Your task to perform on an android device: Go to battery settings Image 0: 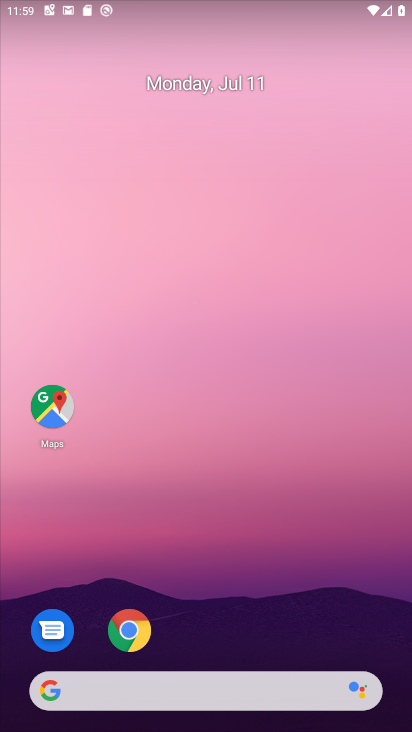
Step 0: drag from (208, 660) to (208, 8)
Your task to perform on an android device: Go to battery settings Image 1: 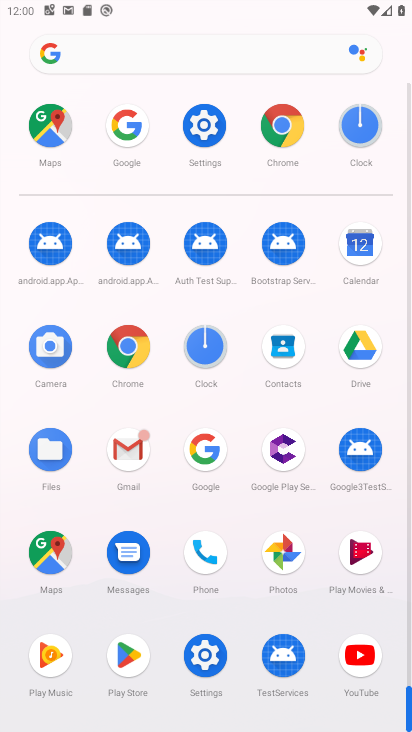
Step 1: click (208, 116)
Your task to perform on an android device: Go to battery settings Image 2: 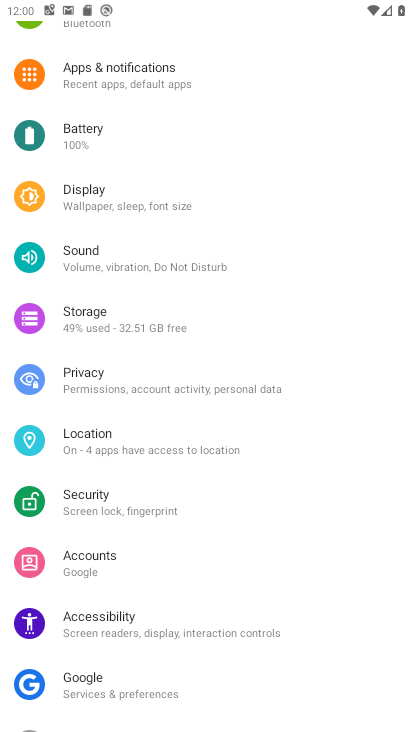
Step 2: click (158, 146)
Your task to perform on an android device: Go to battery settings Image 3: 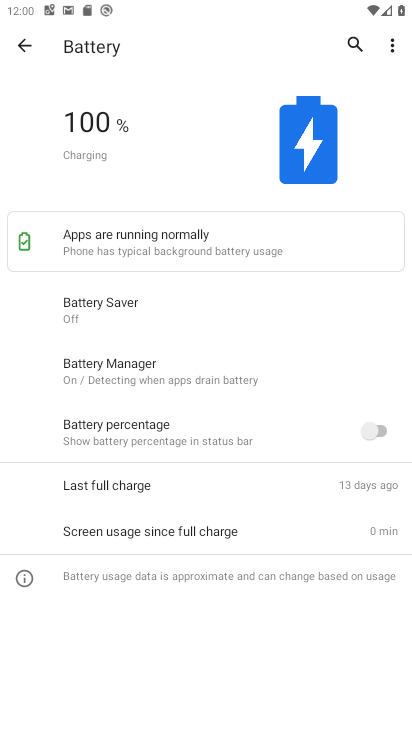
Step 3: task complete